Your task to perform on an android device: star an email in the gmail app Image 0: 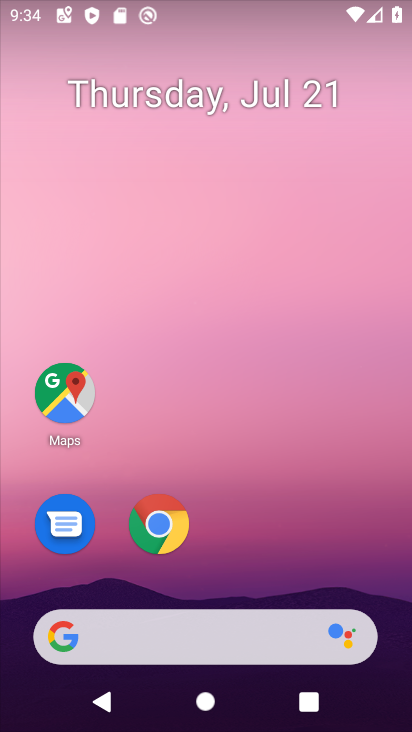
Step 0: press home button
Your task to perform on an android device: star an email in the gmail app Image 1: 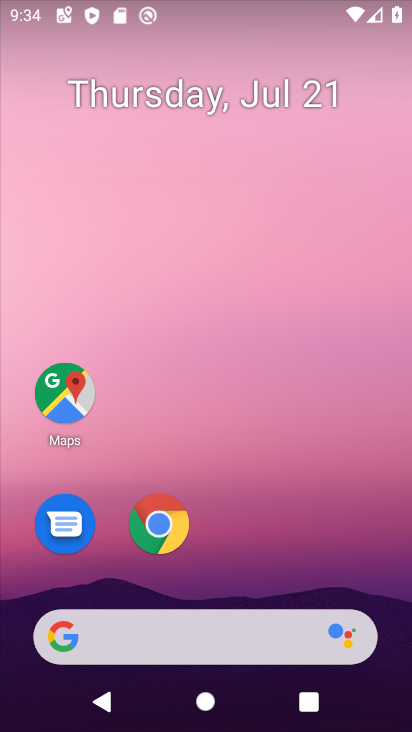
Step 1: drag from (162, 644) to (230, 219)
Your task to perform on an android device: star an email in the gmail app Image 2: 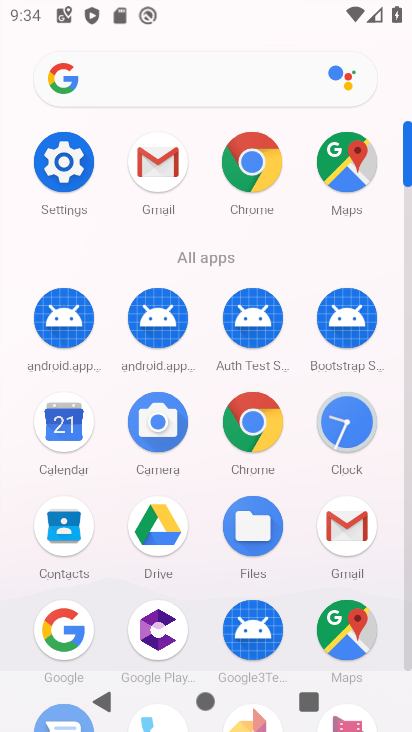
Step 2: click (162, 174)
Your task to perform on an android device: star an email in the gmail app Image 3: 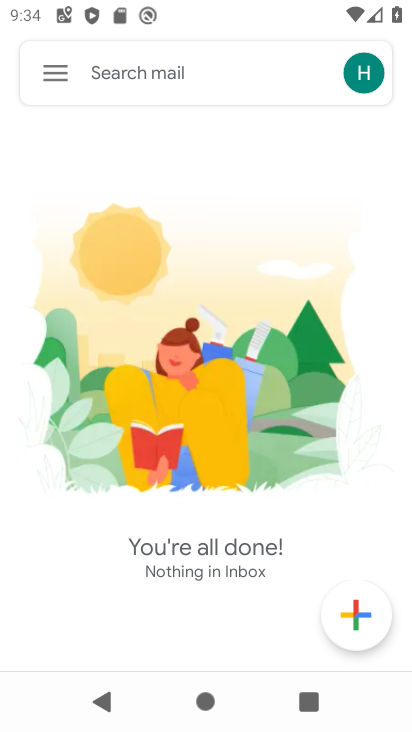
Step 3: task complete